Your task to perform on an android device: delete browsing data in the chrome app Image 0: 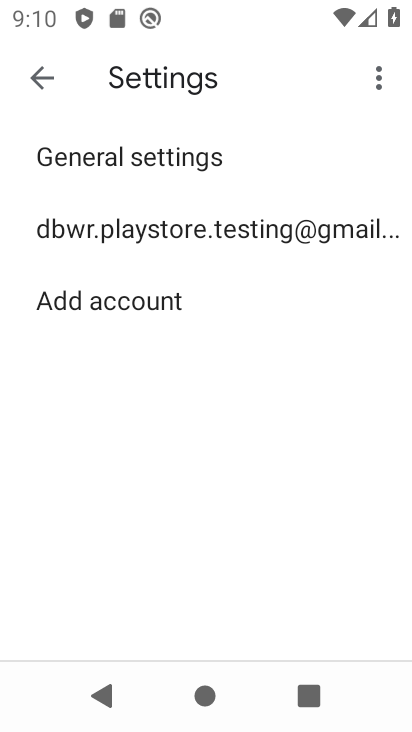
Step 0: press home button
Your task to perform on an android device: delete browsing data in the chrome app Image 1: 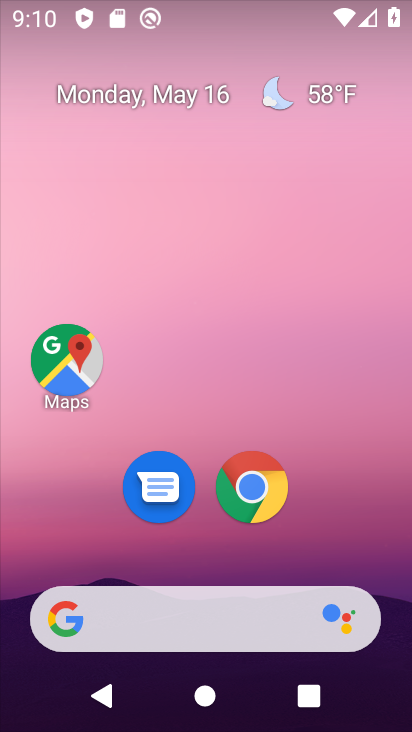
Step 1: click (255, 498)
Your task to perform on an android device: delete browsing data in the chrome app Image 2: 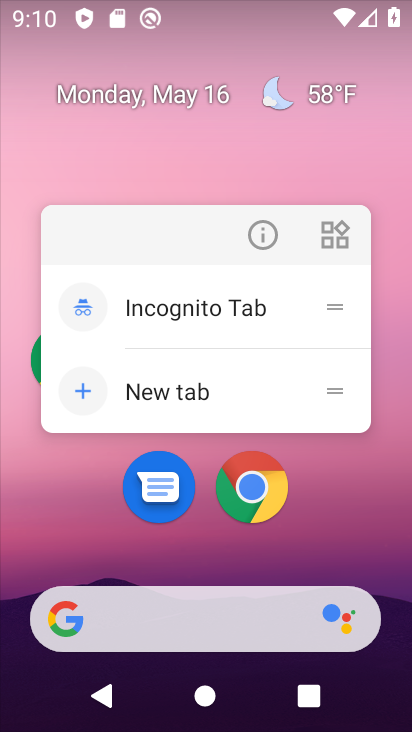
Step 2: click (259, 490)
Your task to perform on an android device: delete browsing data in the chrome app Image 3: 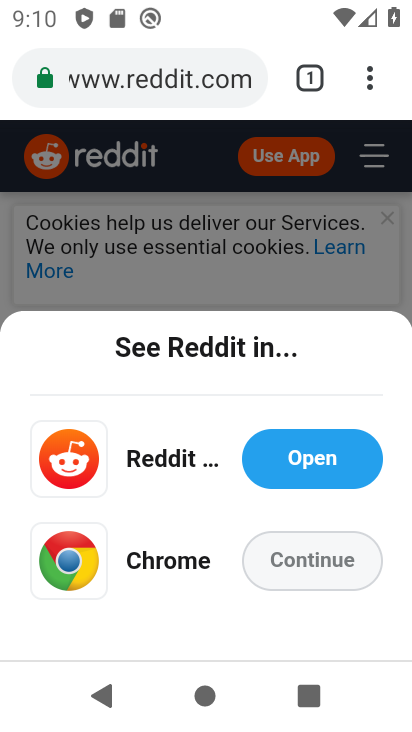
Step 3: click (366, 91)
Your task to perform on an android device: delete browsing data in the chrome app Image 4: 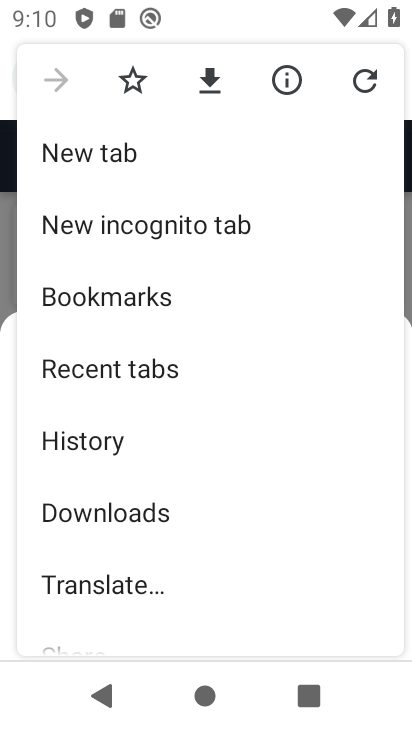
Step 4: drag from (226, 492) to (245, 186)
Your task to perform on an android device: delete browsing data in the chrome app Image 5: 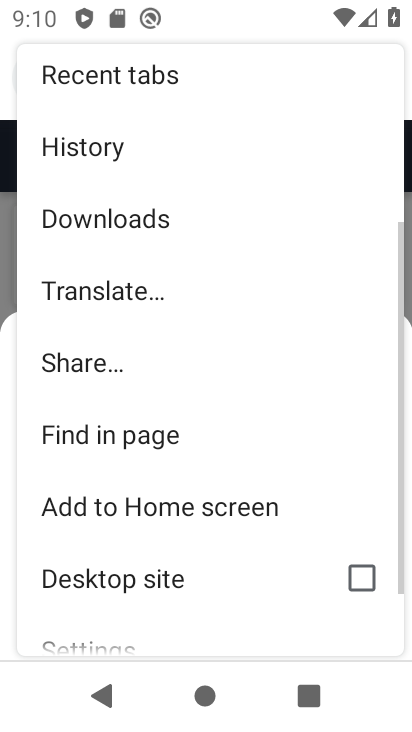
Step 5: drag from (227, 627) to (236, 237)
Your task to perform on an android device: delete browsing data in the chrome app Image 6: 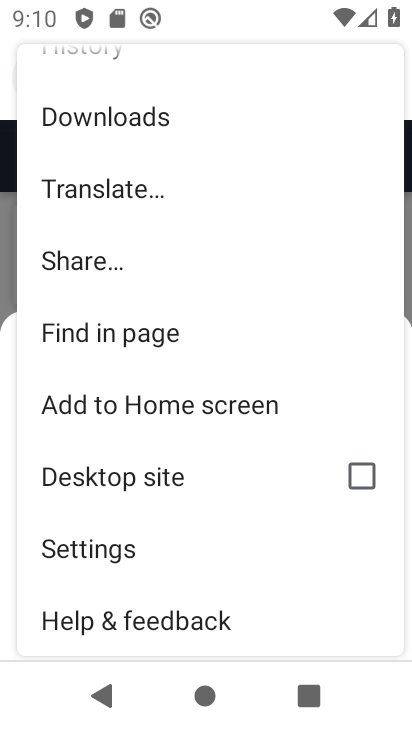
Step 6: click (136, 544)
Your task to perform on an android device: delete browsing data in the chrome app Image 7: 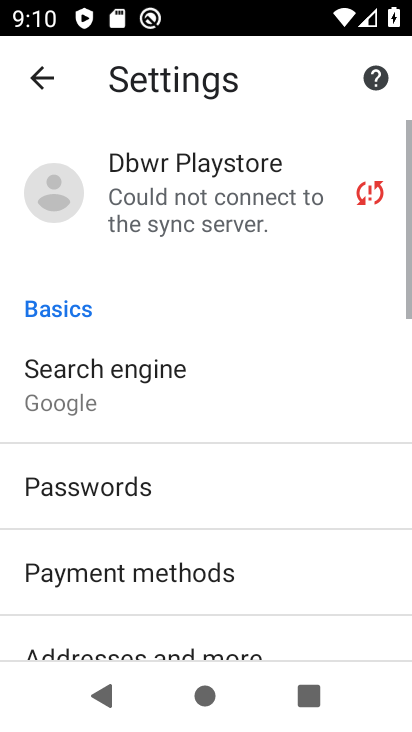
Step 7: drag from (262, 526) to (257, 159)
Your task to perform on an android device: delete browsing data in the chrome app Image 8: 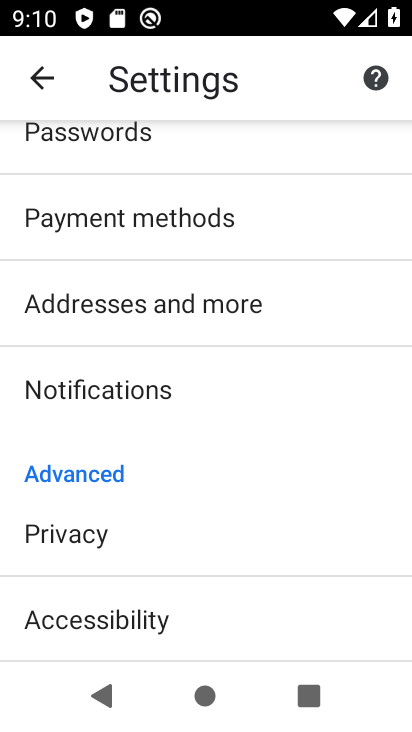
Step 8: click (114, 524)
Your task to perform on an android device: delete browsing data in the chrome app Image 9: 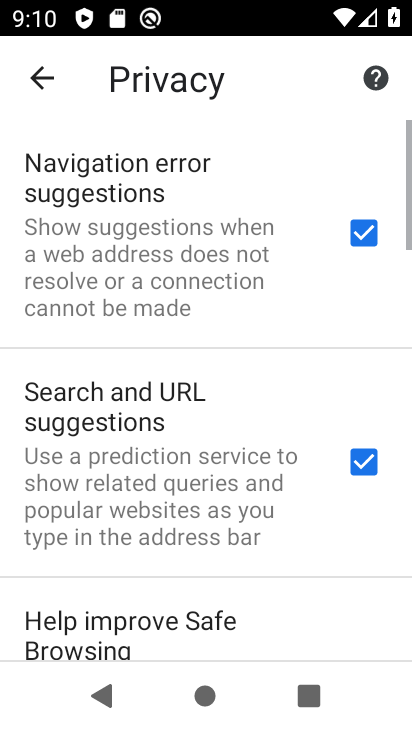
Step 9: drag from (254, 576) to (284, 98)
Your task to perform on an android device: delete browsing data in the chrome app Image 10: 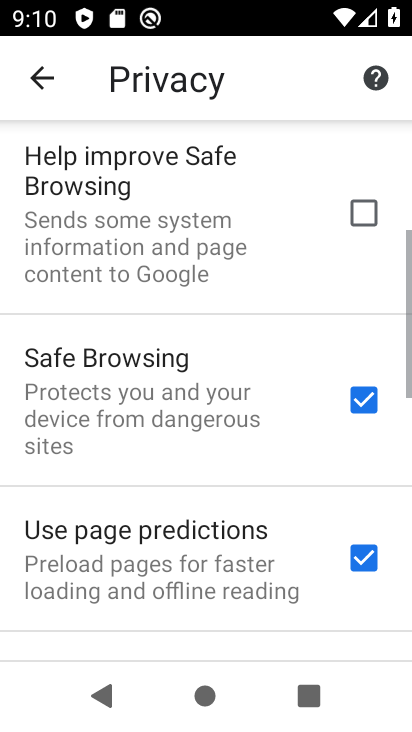
Step 10: drag from (215, 588) to (264, 90)
Your task to perform on an android device: delete browsing data in the chrome app Image 11: 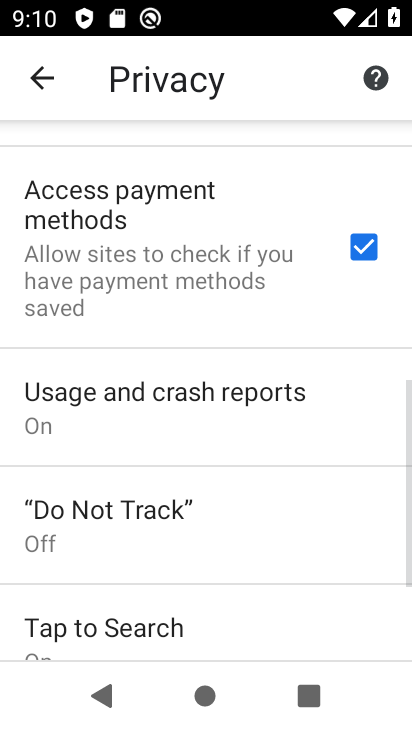
Step 11: drag from (218, 581) to (276, 95)
Your task to perform on an android device: delete browsing data in the chrome app Image 12: 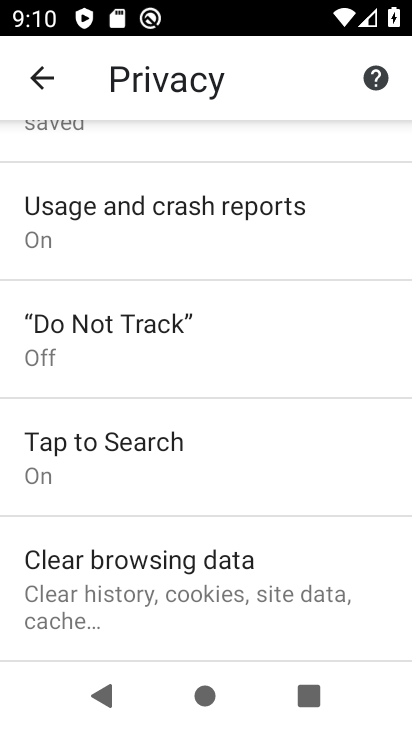
Step 12: click (164, 587)
Your task to perform on an android device: delete browsing data in the chrome app Image 13: 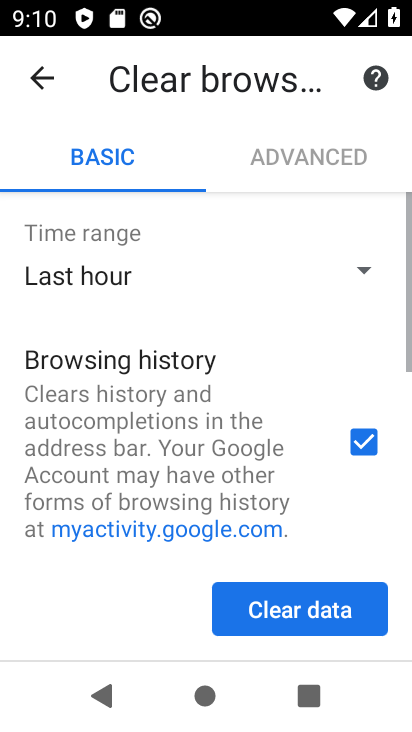
Step 13: drag from (306, 506) to (304, 196)
Your task to perform on an android device: delete browsing data in the chrome app Image 14: 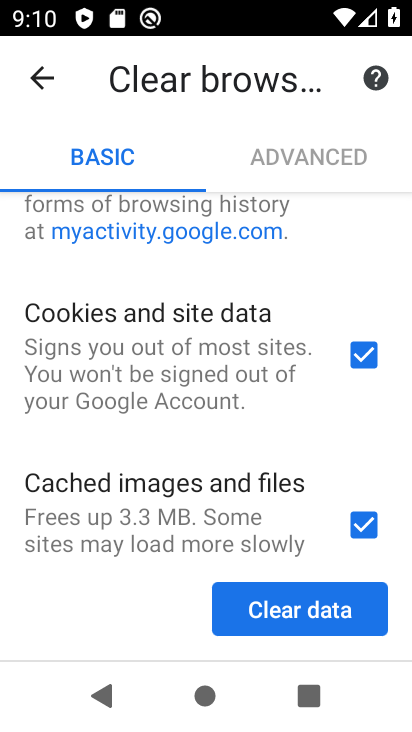
Step 14: click (358, 353)
Your task to perform on an android device: delete browsing data in the chrome app Image 15: 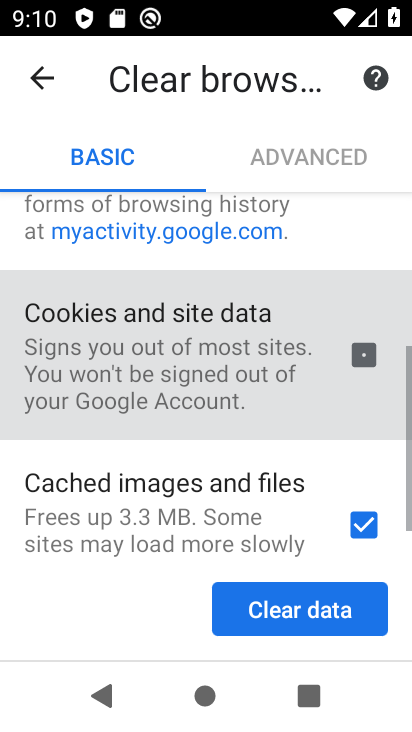
Step 15: click (365, 537)
Your task to perform on an android device: delete browsing data in the chrome app Image 16: 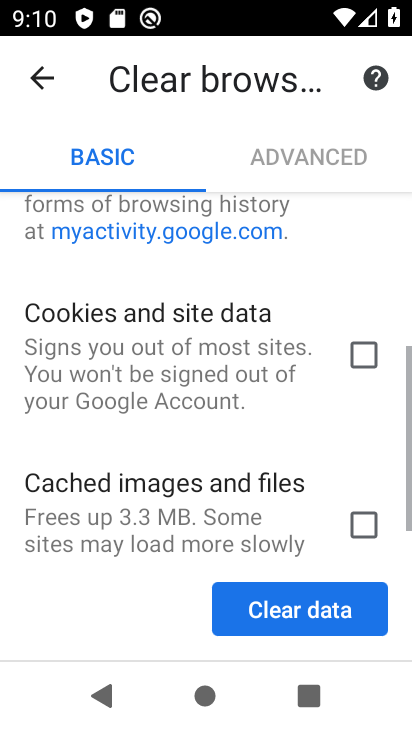
Step 16: click (333, 589)
Your task to perform on an android device: delete browsing data in the chrome app Image 17: 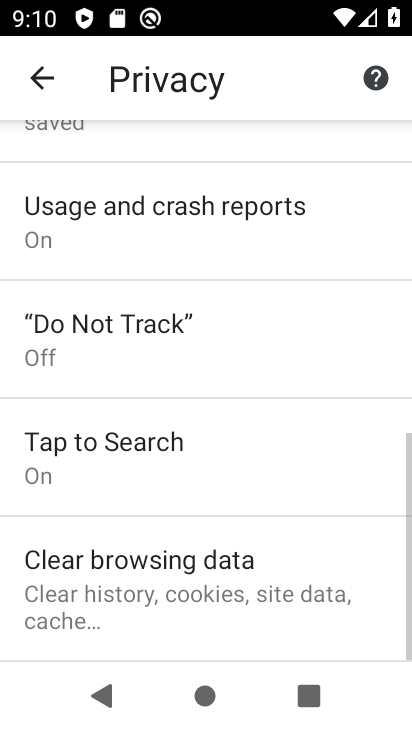
Step 17: task complete